Your task to perform on an android device: Go to display settings Image 0: 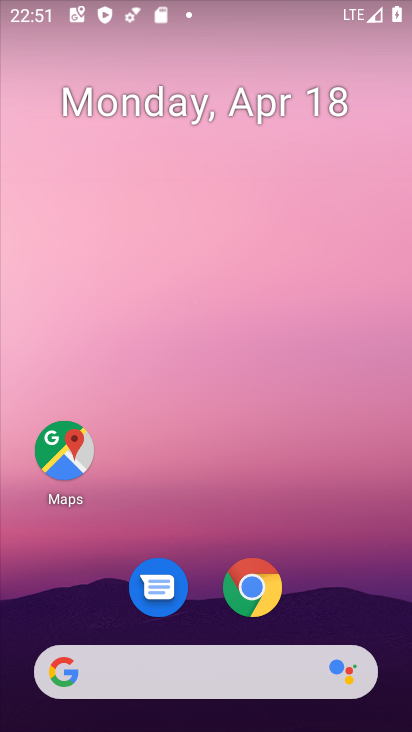
Step 0: drag from (333, 505) to (318, 230)
Your task to perform on an android device: Go to display settings Image 1: 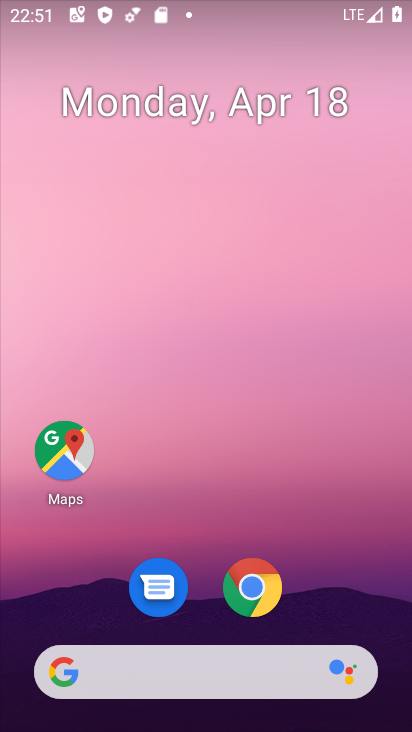
Step 1: drag from (344, 568) to (359, 59)
Your task to perform on an android device: Go to display settings Image 2: 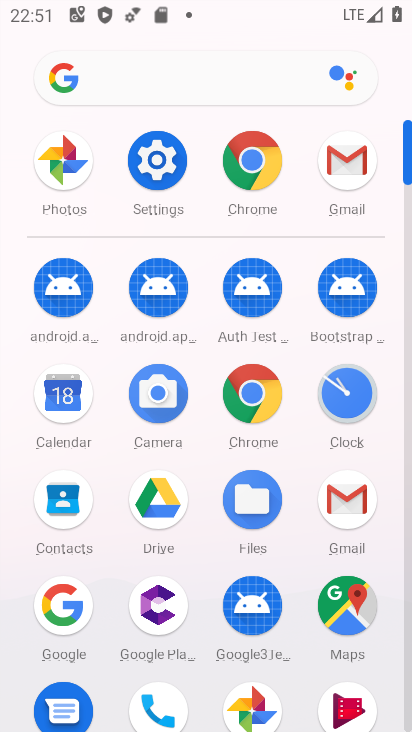
Step 2: click (145, 147)
Your task to perform on an android device: Go to display settings Image 3: 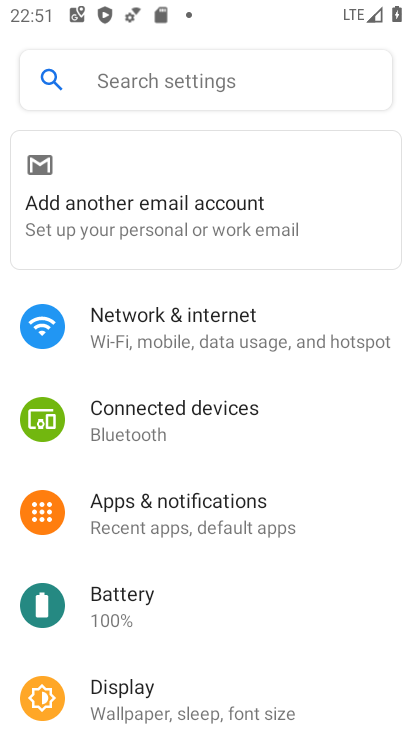
Step 3: drag from (338, 601) to (338, 267)
Your task to perform on an android device: Go to display settings Image 4: 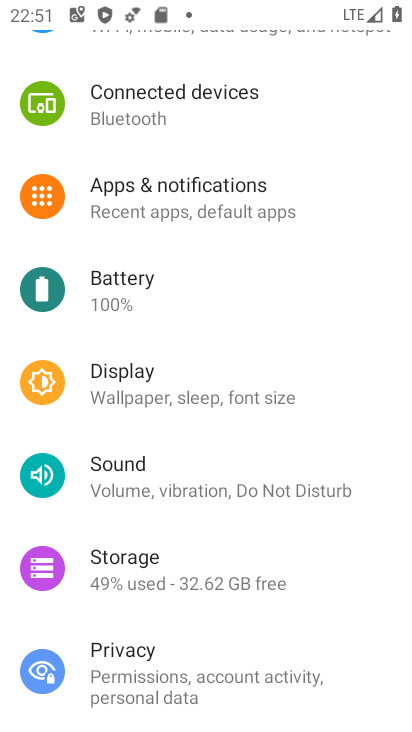
Step 4: click (128, 402)
Your task to perform on an android device: Go to display settings Image 5: 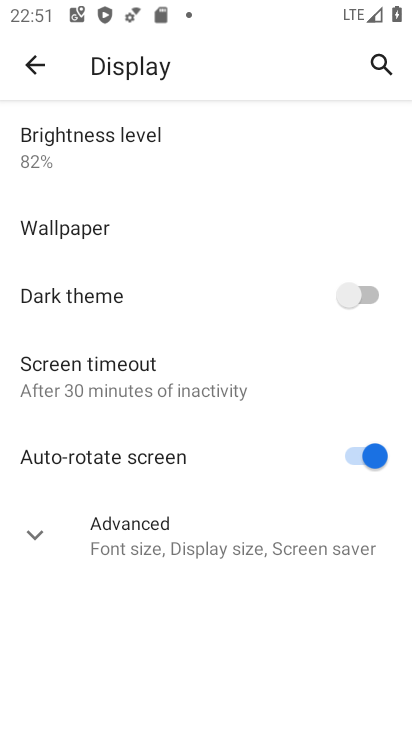
Step 5: task complete